Your task to perform on an android device: turn off location history Image 0: 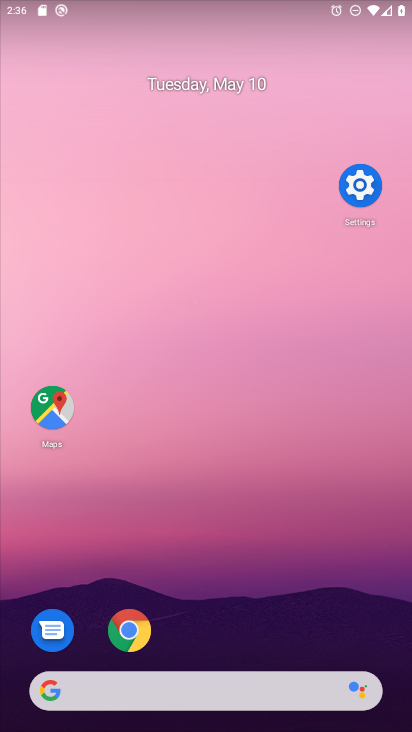
Step 0: drag from (263, 658) to (203, 103)
Your task to perform on an android device: turn off location history Image 1: 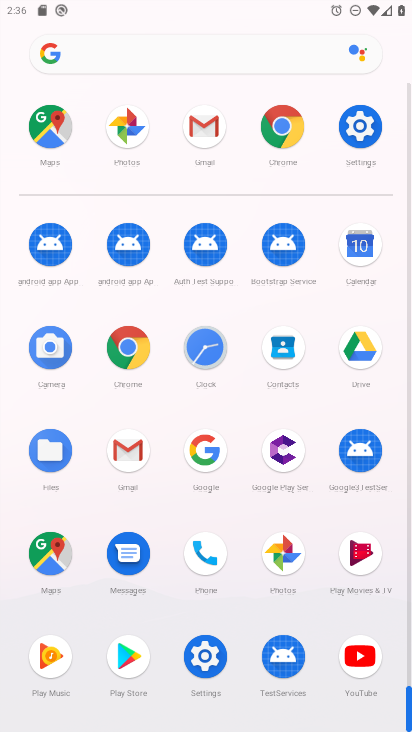
Step 1: click (56, 122)
Your task to perform on an android device: turn off location history Image 2: 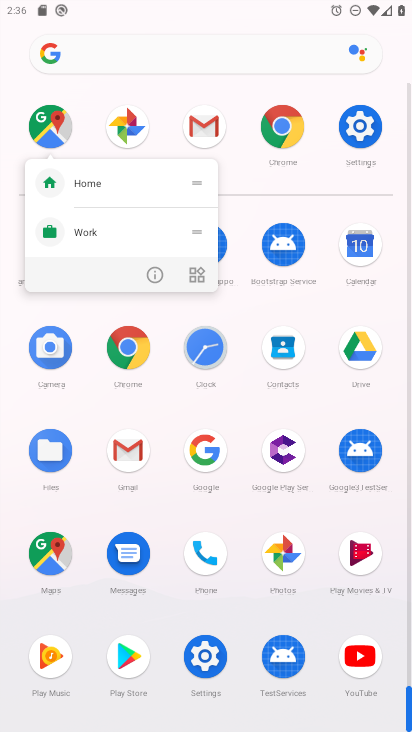
Step 2: click (70, 141)
Your task to perform on an android device: turn off location history Image 3: 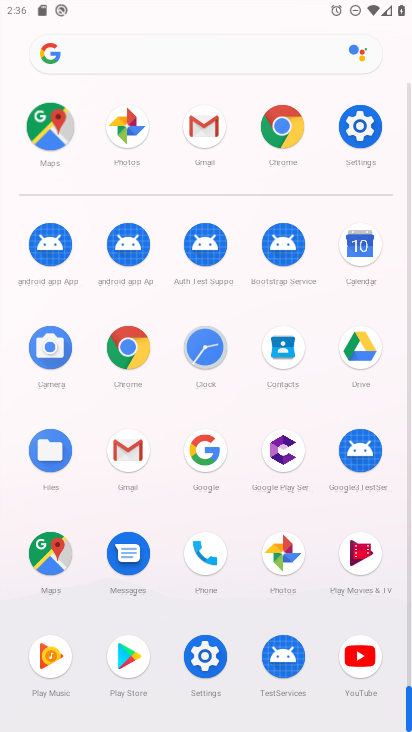
Step 3: click (52, 124)
Your task to perform on an android device: turn off location history Image 4: 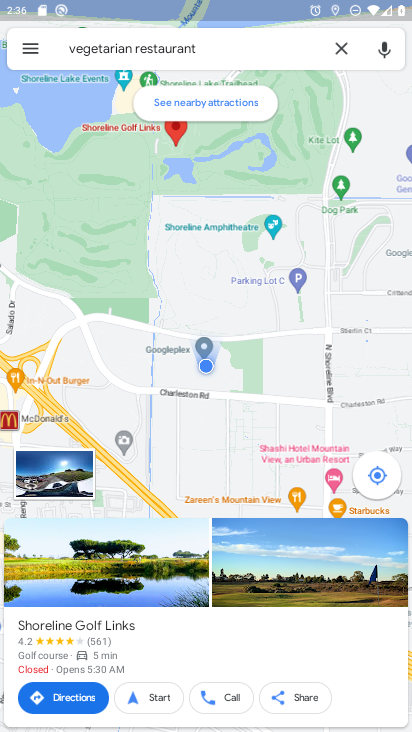
Step 4: click (44, 51)
Your task to perform on an android device: turn off location history Image 5: 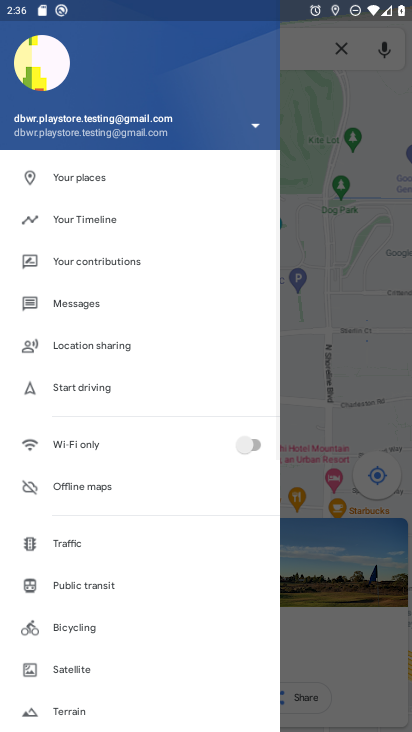
Step 5: click (85, 202)
Your task to perform on an android device: turn off location history Image 6: 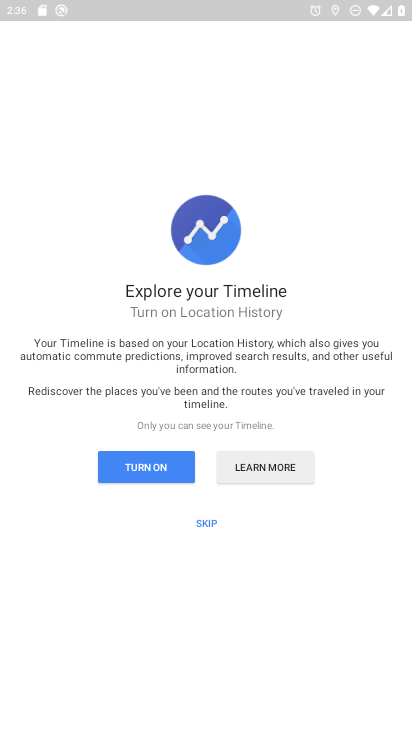
Step 6: click (153, 462)
Your task to perform on an android device: turn off location history Image 7: 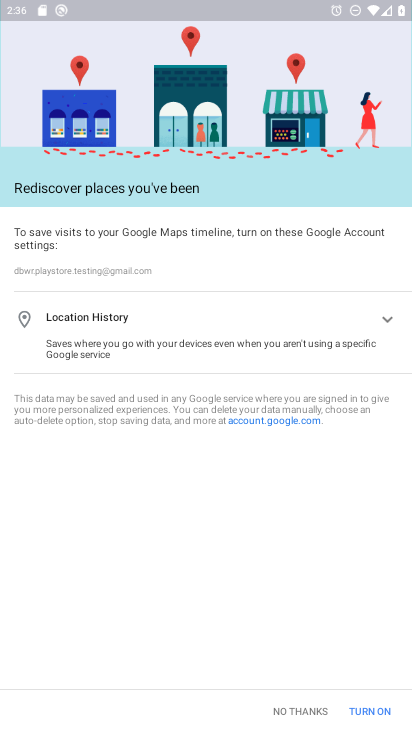
Step 7: click (370, 706)
Your task to perform on an android device: turn off location history Image 8: 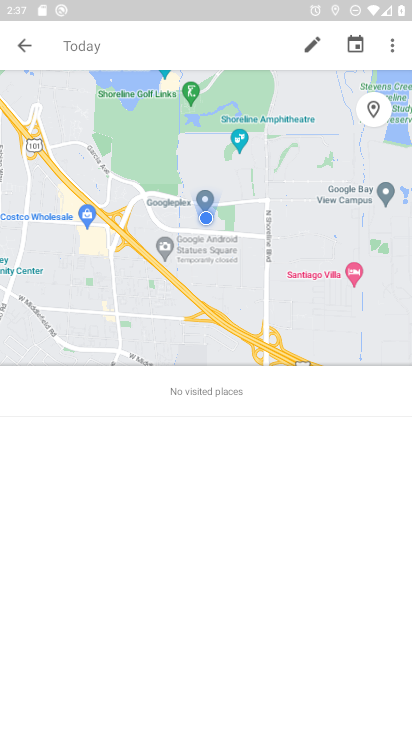
Step 8: drag from (388, 43) to (338, 82)
Your task to perform on an android device: turn off location history Image 9: 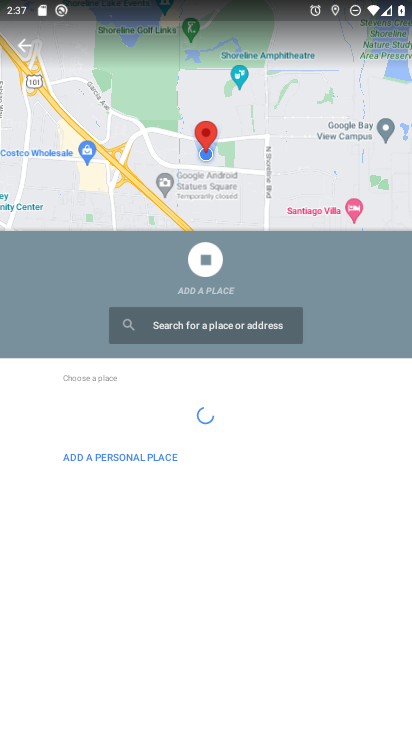
Step 9: click (389, 45)
Your task to perform on an android device: turn off location history Image 10: 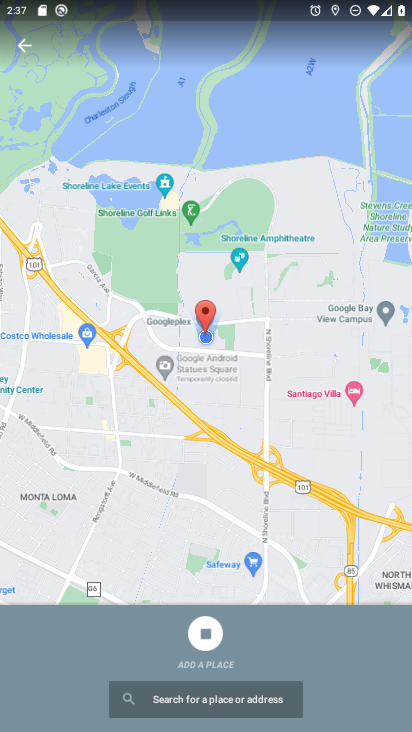
Step 10: click (25, 46)
Your task to perform on an android device: turn off location history Image 11: 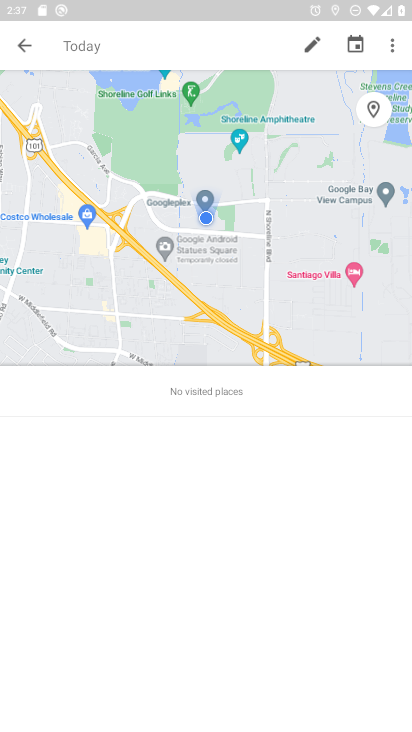
Step 11: click (388, 46)
Your task to perform on an android device: turn off location history Image 12: 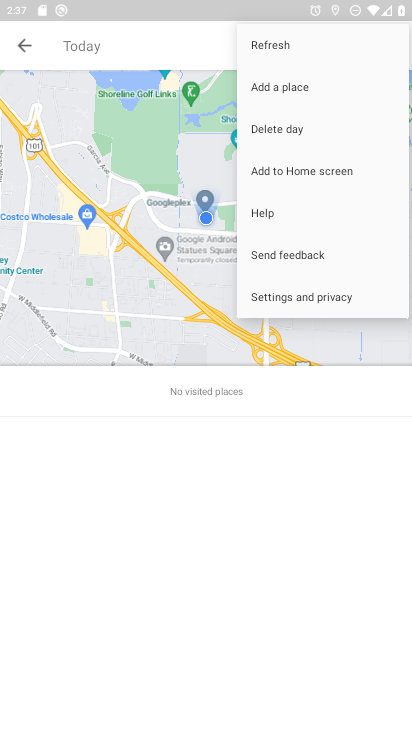
Step 12: click (290, 284)
Your task to perform on an android device: turn off location history Image 13: 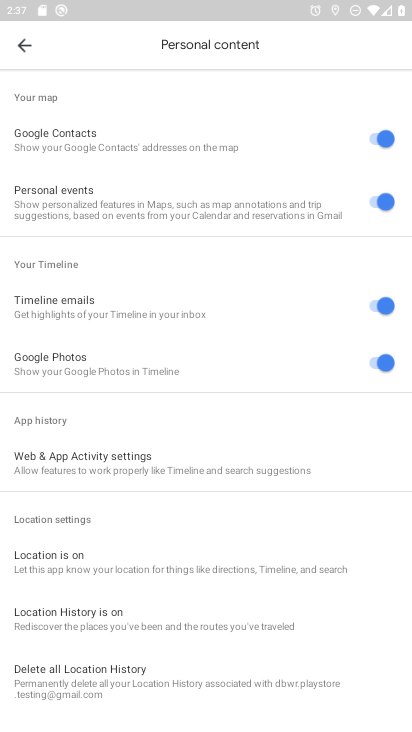
Step 13: click (59, 623)
Your task to perform on an android device: turn off location history Image 14: 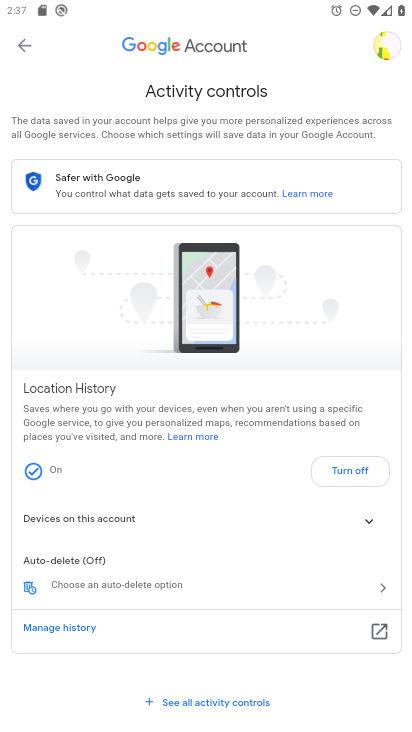
Step 14: click (342, 470)
Your task to perform on an android device: turn off location history Image 15: 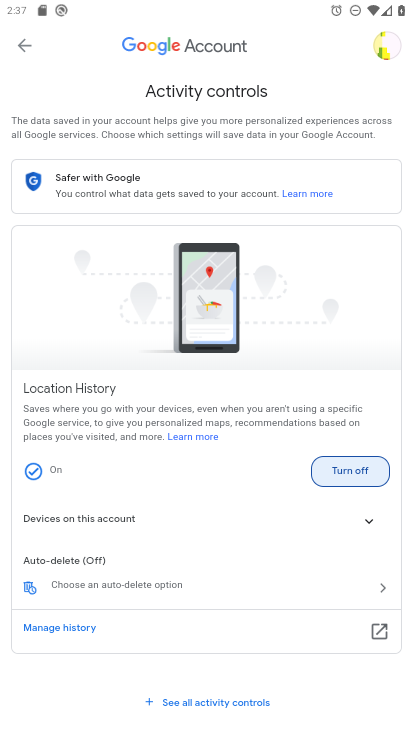
Step 15: task complete